Your task to perform on an android device: What's the weather? Image 0: 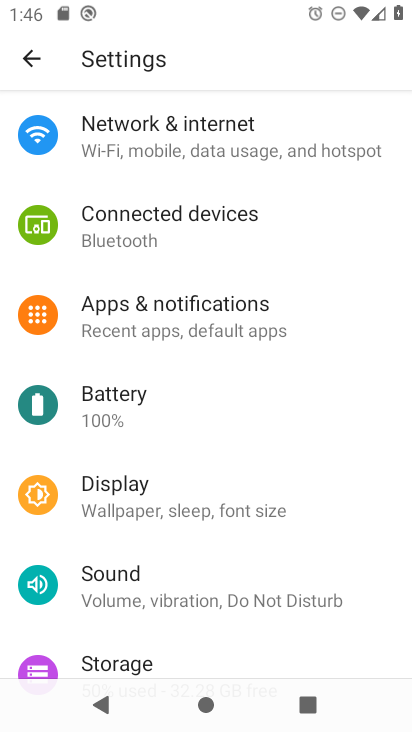
Step 0: press home button
Your task to perform on an android device: What's the weather? Image 1: 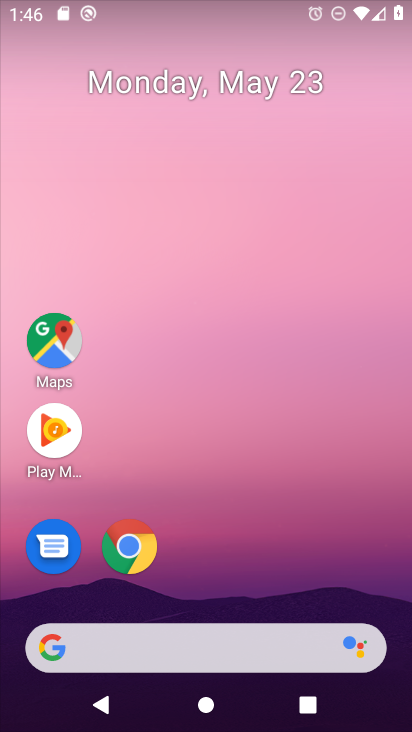
Step 1: click (162, 327)
Your task to perform on an android device: What's the weather? Image 2: 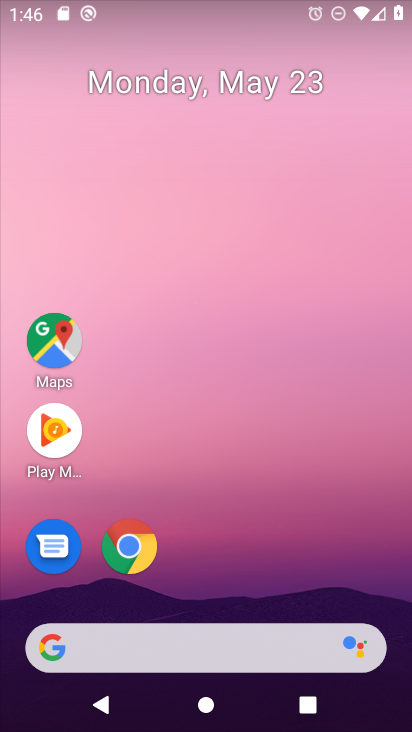
Step 2: drag from (261, 727) to (271, 0)
Your task to perform on an android device: What's the weather? Image 3: 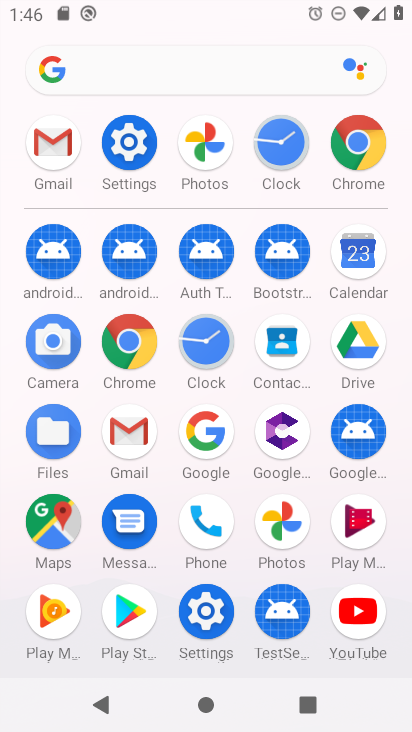
Step 3: click (204, 456)
Your task to perform on an android device: What's the weather? Image 4: 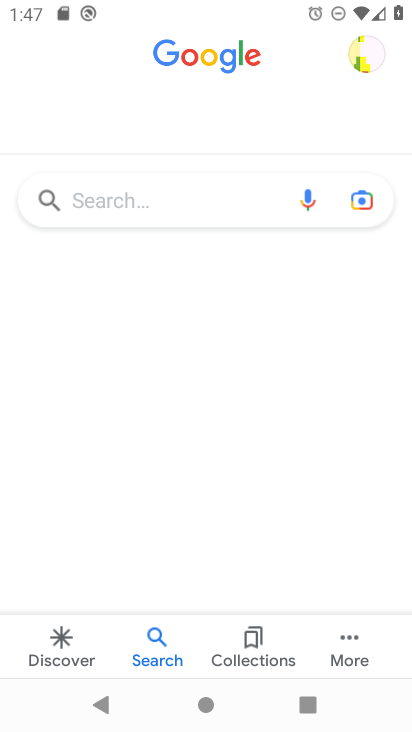
Step 4: click (216, 203)
Your task to perform on an android device: What's the weather? Image 5: 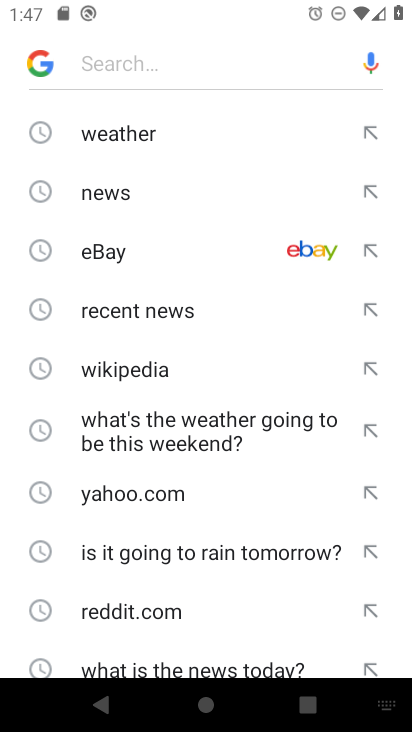
Step 5: click (183, 142)
Your task to perform on an android device: What's the weather? Image 6: 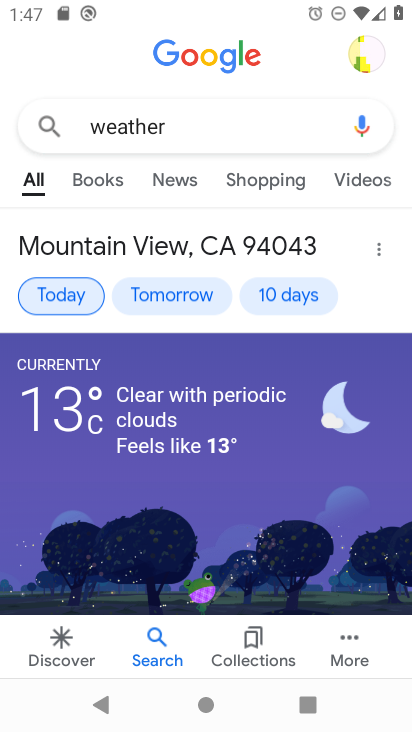
Step 6: task complete